Your task to perform on an android device: turn off location Image 0: 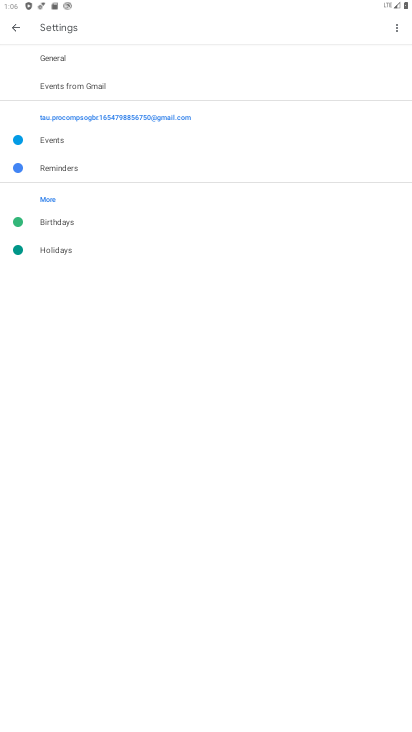
Step 0: press home button
Your task to perform on an android device: turn off location Image 1: 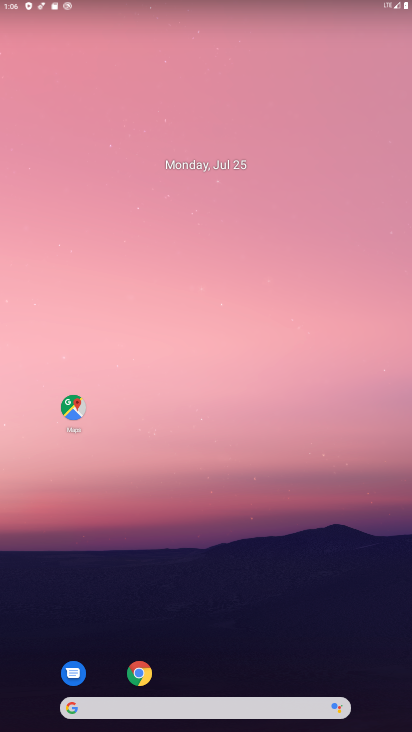
Step 1: drag from (366, 676) to (306, 152)
Your task to perform on an android device: turn off location Image 2: 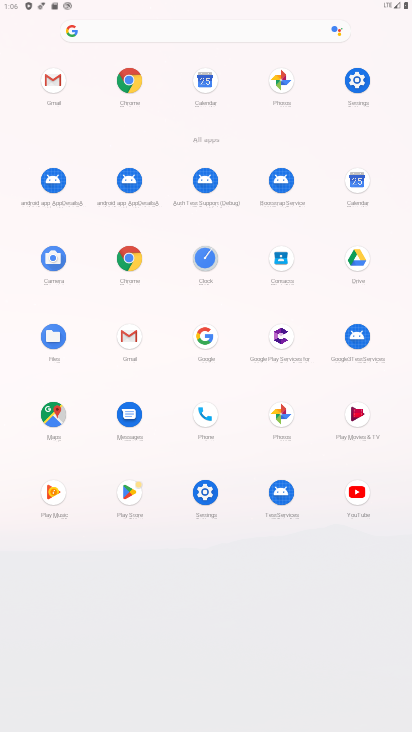
Step 2: click (205, 491)
Your task to perform on an android device: turn off location Image 3: 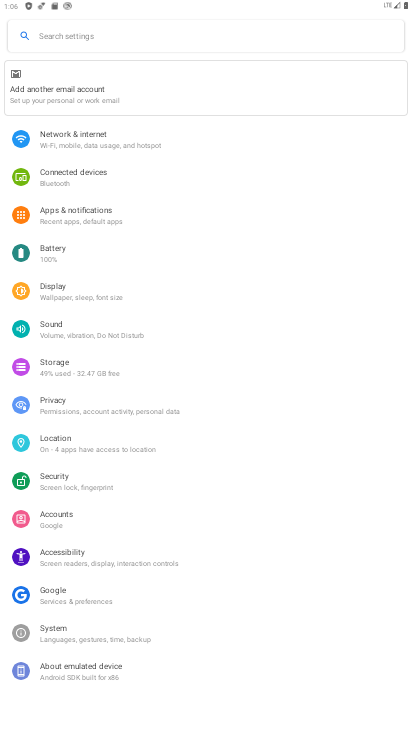
Step 3: click (39, 435)
Your task to perform on an android device: turn off location Image 4: 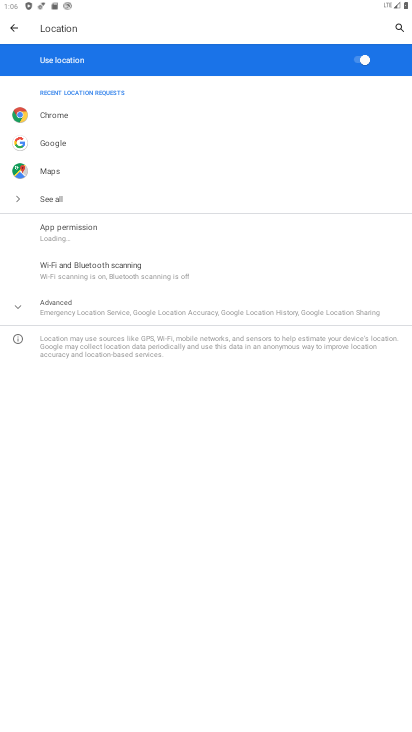
Step 4: click (361, 59)
Your task to perform on an android device: turn off location Image 5: 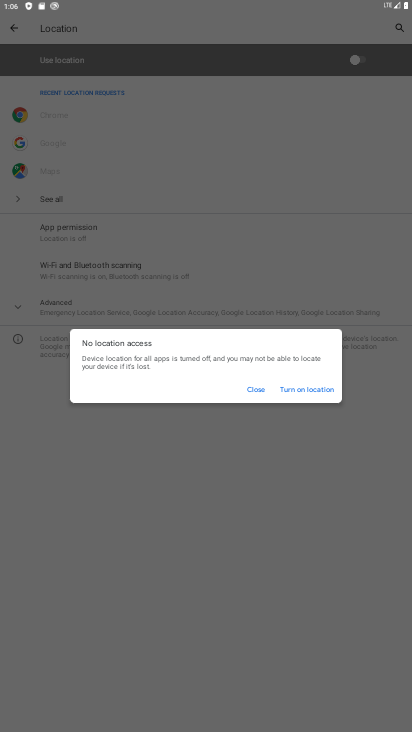
Step 5: click (245, 388)
Your task to perform on an android device: turn off location Image 6: 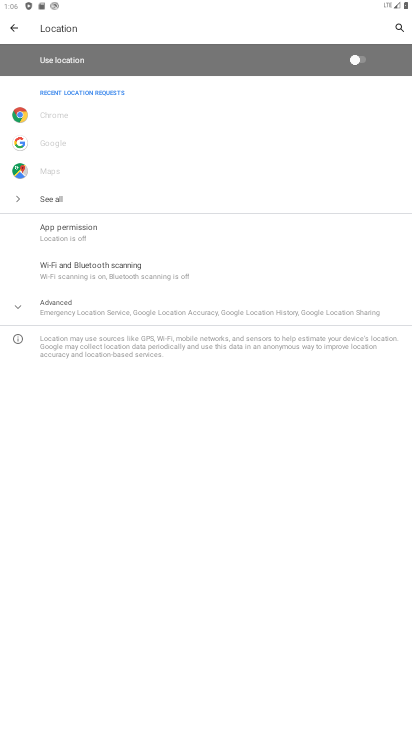
Step 6: task complete